Your task to perform on an android device: toggle javascript in the chrome app Image 0: 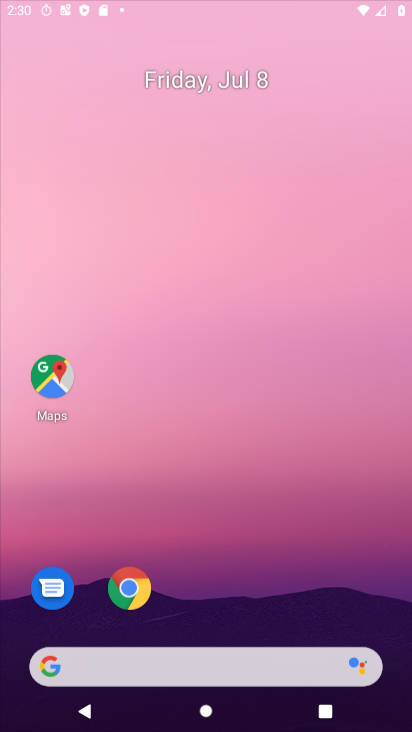
Step 0: press home button
Your task to perform on an android device: toggle javascript in the chrome app Image 1: 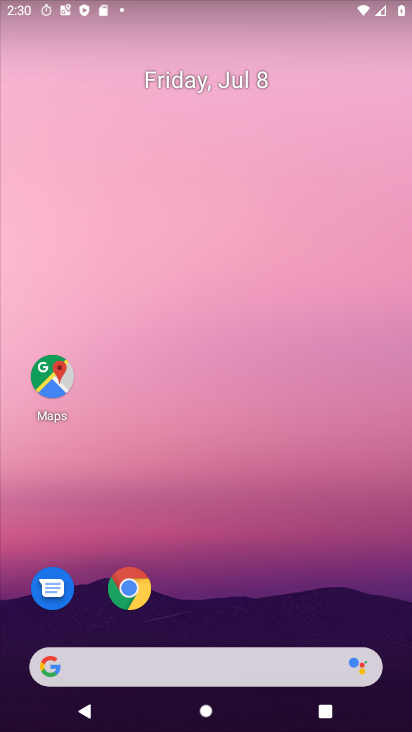
Step 1: drag from (267, 630) to (263, 188)
Your task to perform on an android device: toggle javascript in the chrome app Image 2: 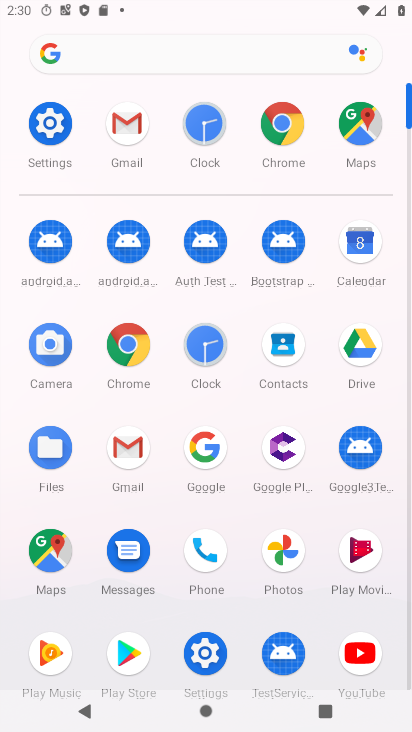
Step 2: click (286, 123)
Your task to perform on an android device: toggle javascript in the chrome app Image 3: 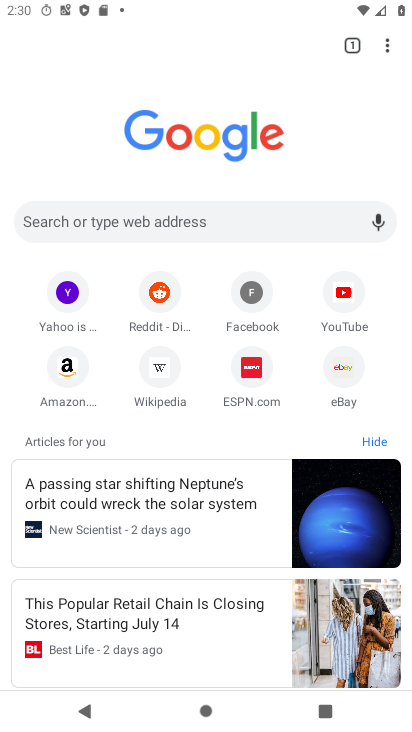
Step 3: drag from (391, 46) to (258, 389)
Your task to perform on an android device: toggle javascript in the chrome app Image 4: 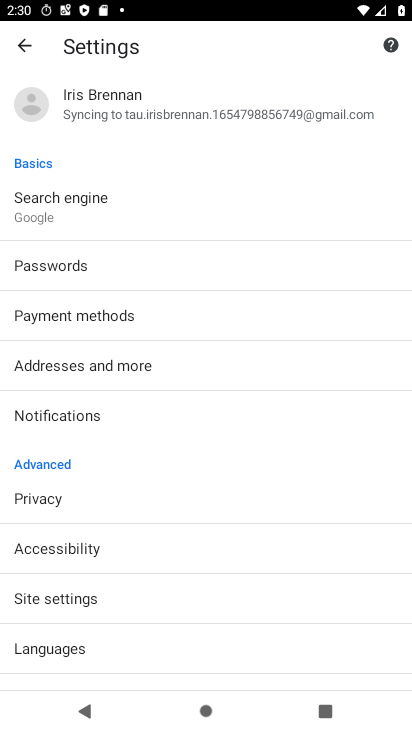
Step 4: click (40, 597)
Your task to perform on an android device: toggle javascript in the chrome app Image 5: 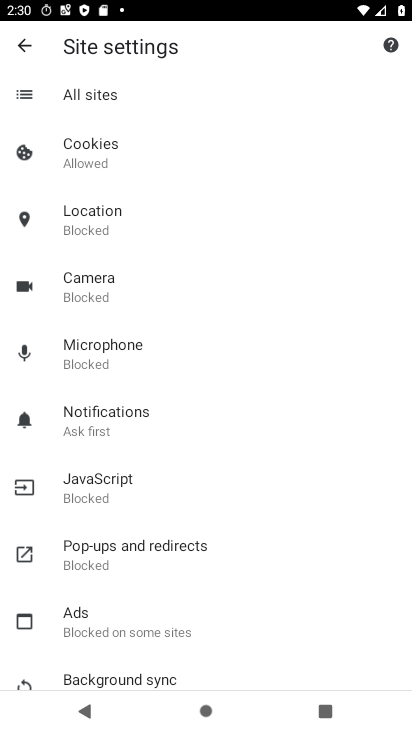
Step 5: click (92, 492)
Your task to perform on an android device: toggle javascript in the chrome app Image 6: 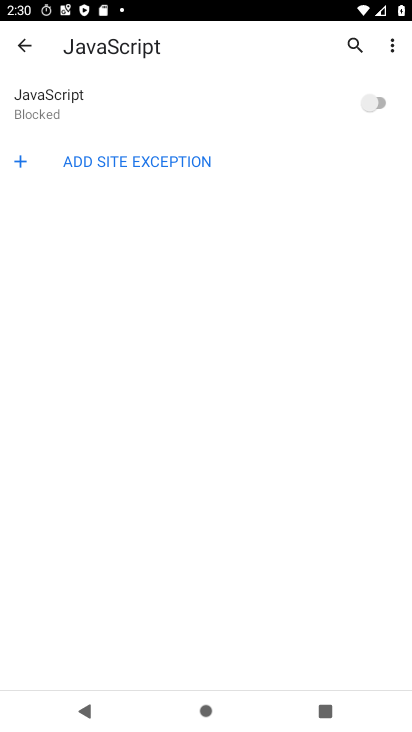
Step 6: click (373, 97)
Your task to perform on an android device: toggle javascript in the chrome app Image 7: 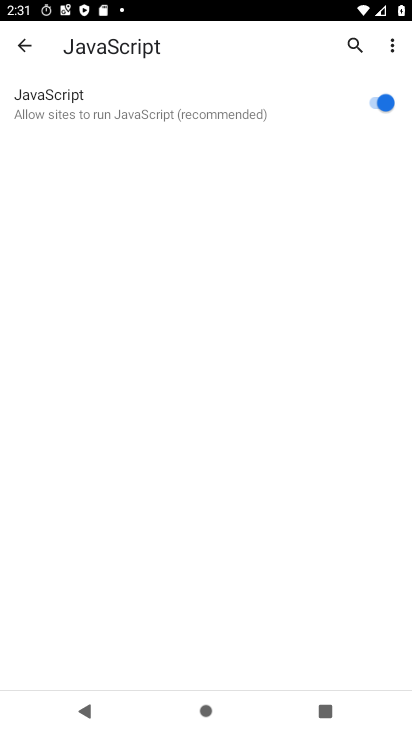
Step 7: task complete